Your task to perform on an android device: toggle improve location accuracy Image 0: 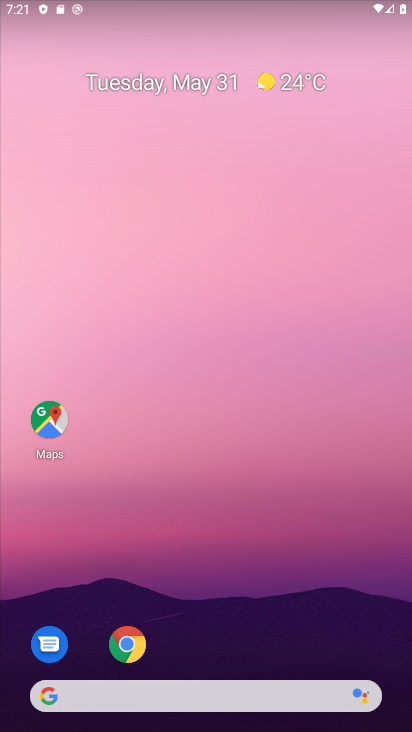
Step 0: drag from (347, 617) to (279, 202)
Your task to perform on an android device: toggle improve location accuracy Image 1: 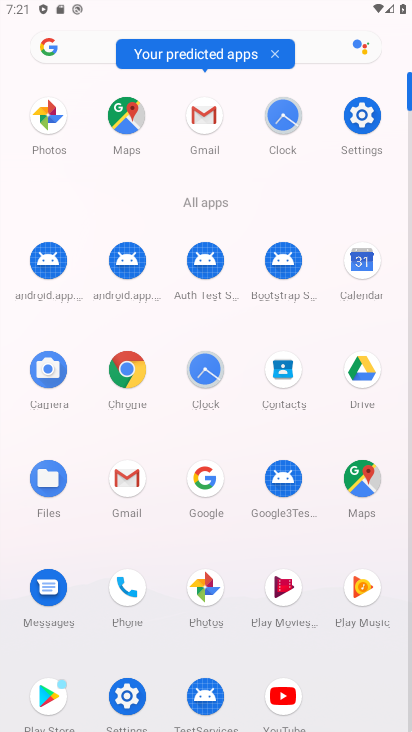
Step 1: click (362, 115)
Your task to perform on an android device: toggle improve location accuracy Image 2: 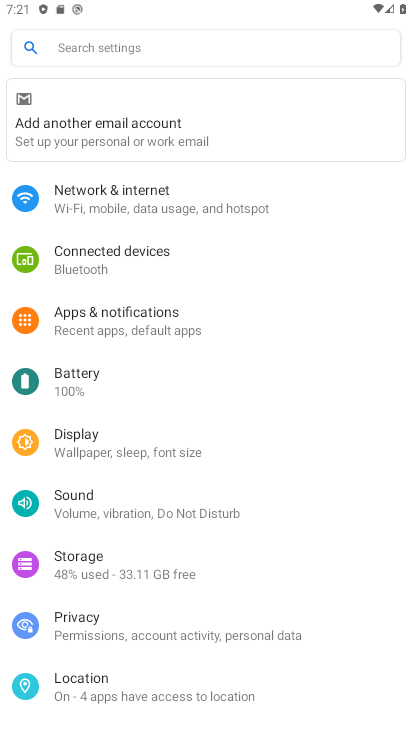
Step 2: click (123, 682)
Your task to perform on an android device: toggle improve location accuracy Image 3: 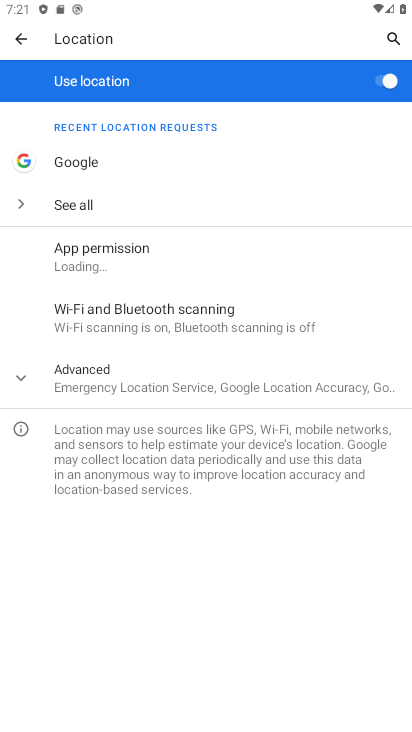
Step 3: click (204, 386)
Your task to perform on an android device: toggle improve location accuracy Image 4: 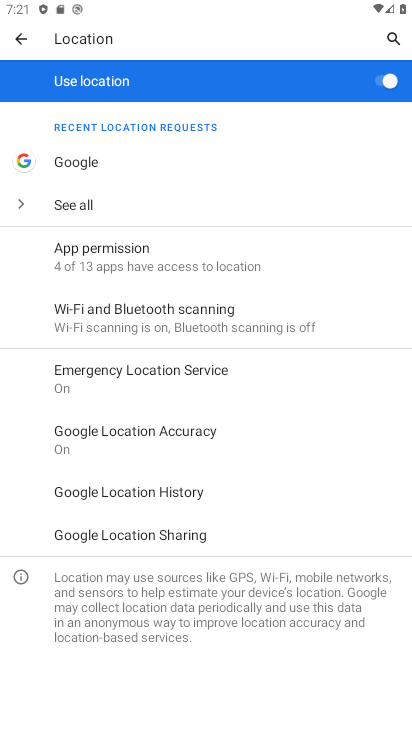
Step 4: click (154, 426)
Your task to perform on an android device: toggle improve location accuracy Image 5: 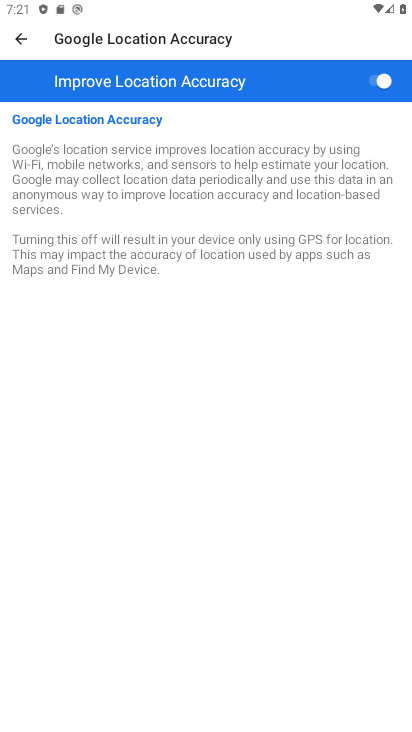
Step 5: click (373, 87)
Your task to perform on an android device: toggle improve location accuracy Image 6: 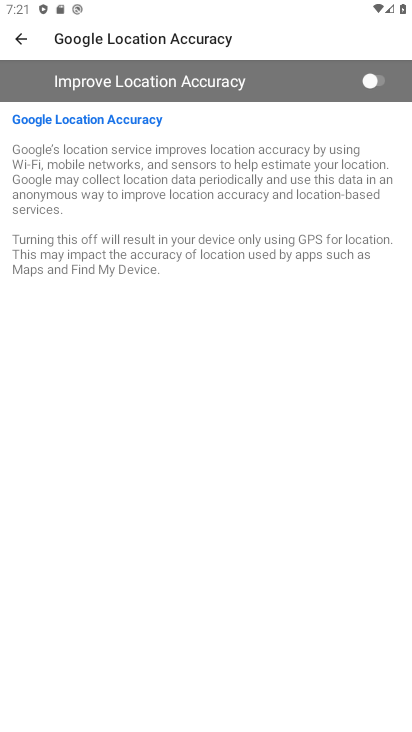
Step 6: task complete